Your task to perform on an android device: check the backup settings in the google photos Image 0: 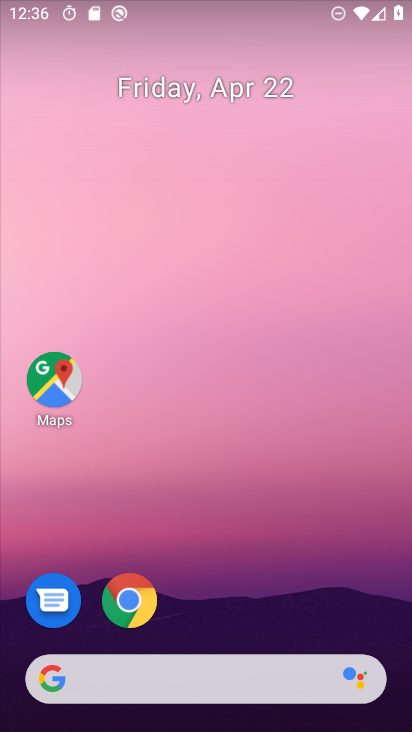
Step 0: drag from (254, 576) to (295, 26)
Your task to perform on an android device: check the backup settings in the google photos Image 1: 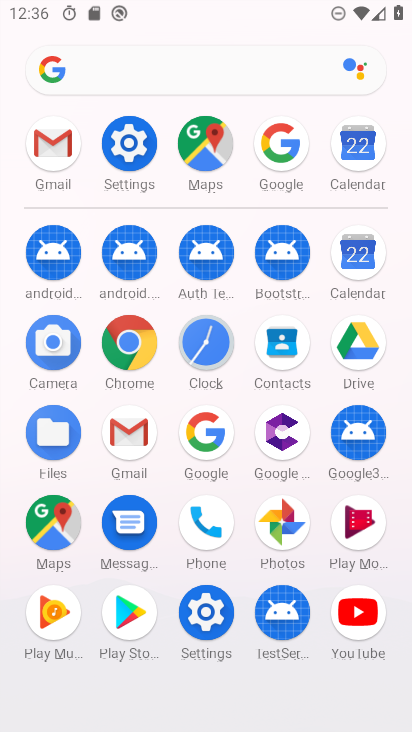
Step 1: click (285, 522)
Your task to perform on an android device: check the backup settings in the google photos Image 2: 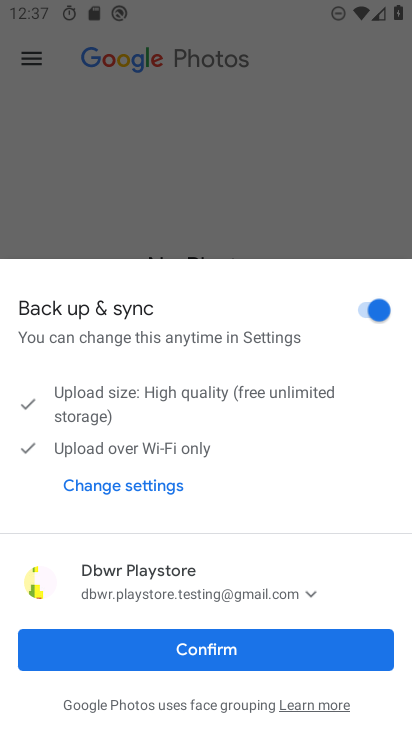
Step 2: click (211, 648)
Your task to perform on an android device: check the backup settings in the google photos Image 3: 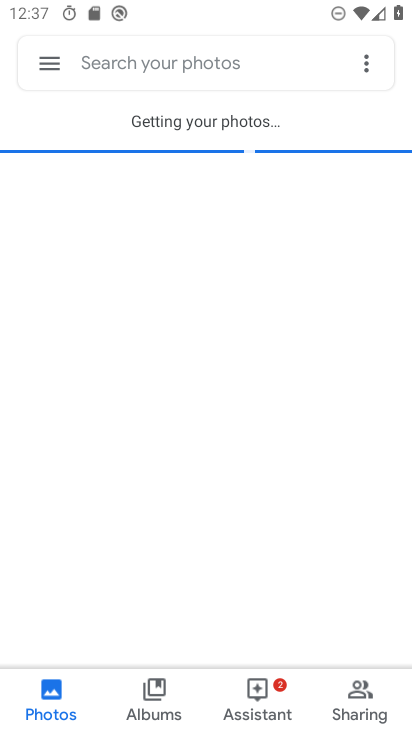
Step 3: click (55, 61)
Your task to perform on an android device: check the backup settings in the google photos Image 4: 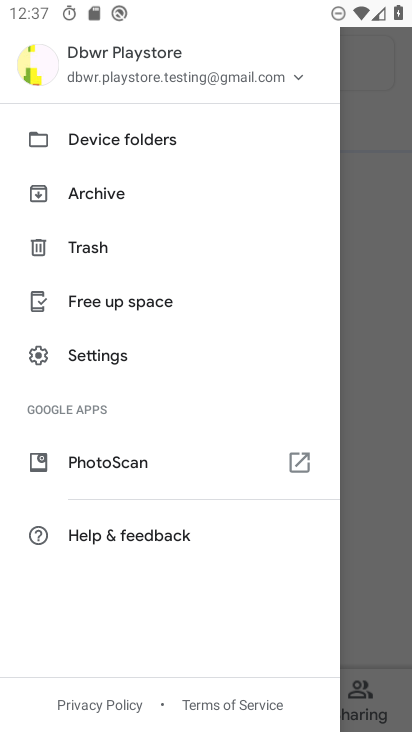
Step 4: click (94, 353)
Your task to perform on an android device: check the backup settings in the google photos Image 5: 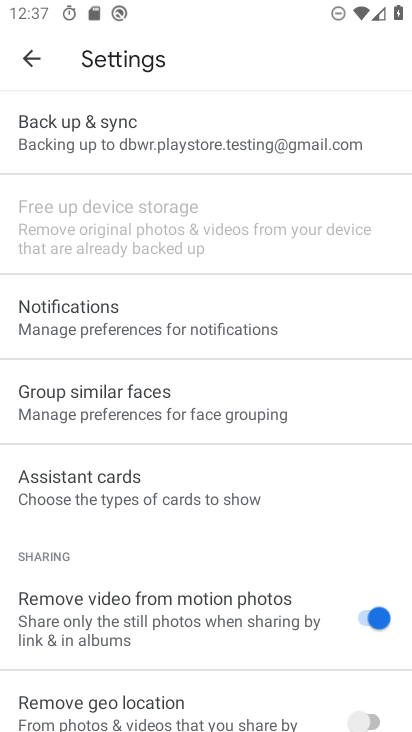
Step 5: click (161, 148)
Your task to perform on an android device: check the backup settings in the google photos Image 6: 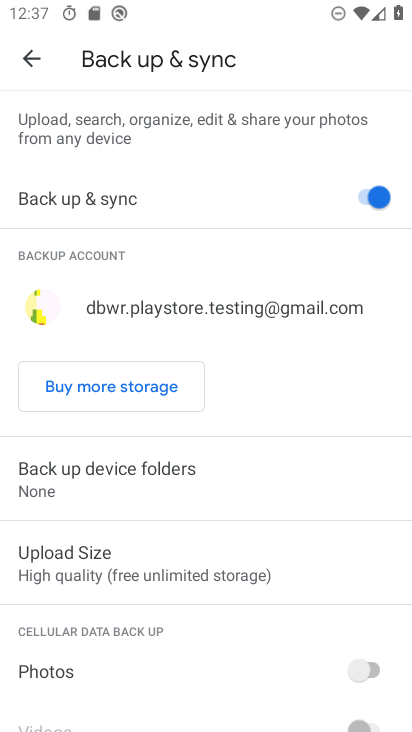
Step 6: task complete